Your task to perform on an android device: Open the Play Movies app and select the watchlist tab. Image 0: 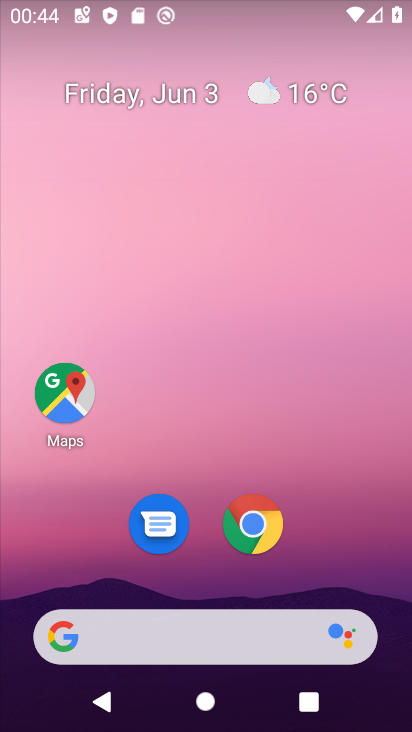
Step 0: drag from (337, 545) to (310, 38)
Your task to perform on an android device: Open the Play Movies app and select the watchlist tab. Image 1: 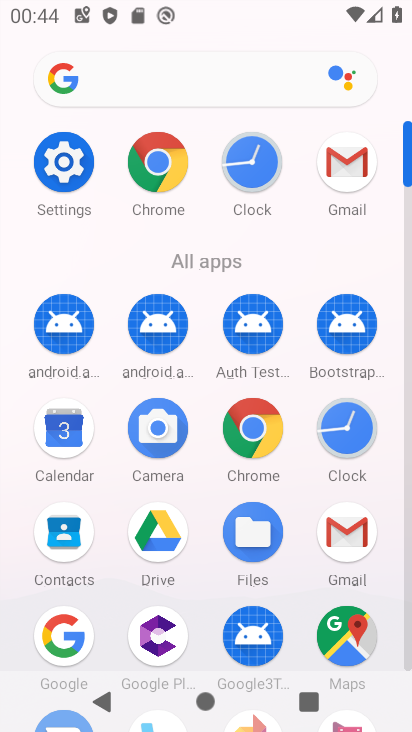
Step 1: drag from (301, 558) to (276, 242)
Your task to perform on an android device: Open the Play Movies app and select the watchlist tab. Image 2: 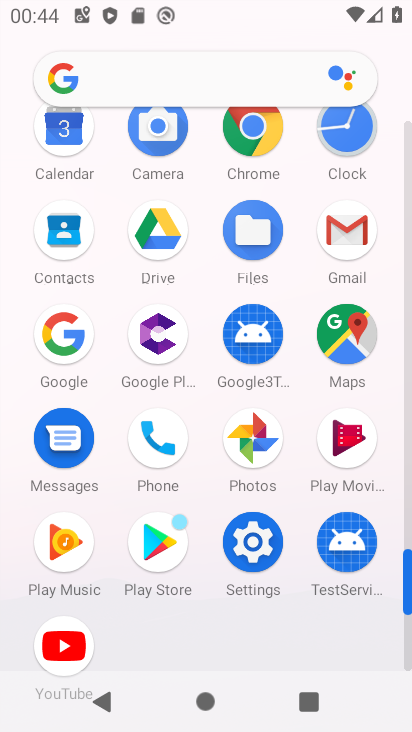
Step 2: click (345, 434)
Your task to perform on an android device: Open the Play Movies app and select the watchlist tab. Image 3: 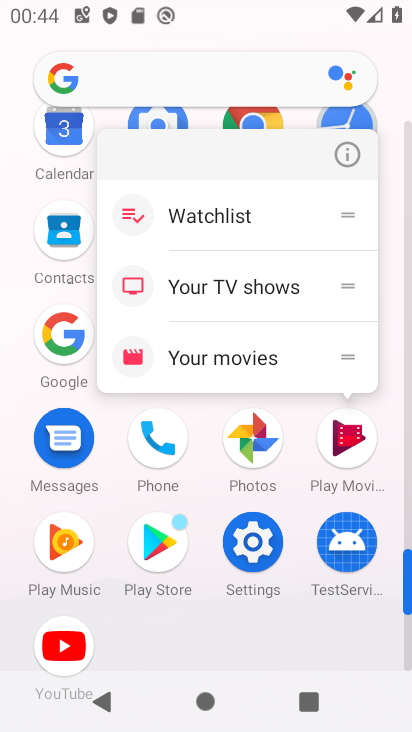
Step 3: click (345, 436)
Your task to perform on an android device: Open the Play Movies app and select the watchlist tab. Image 4: 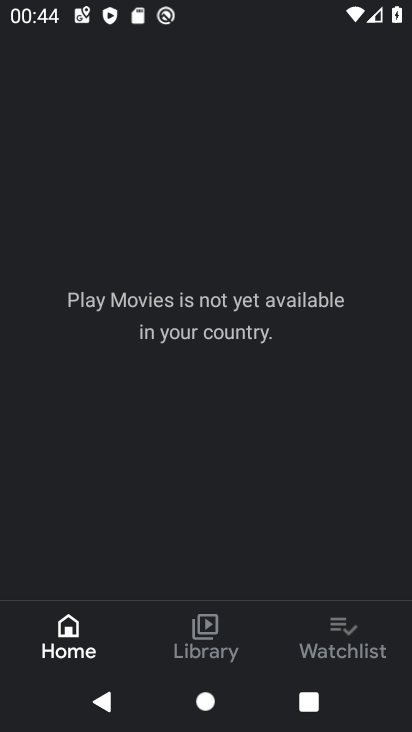
Step 4: click (346, 644)
Your task to perform on an android device: Open the Play Movies app and select the watchlist tab. Image 5: 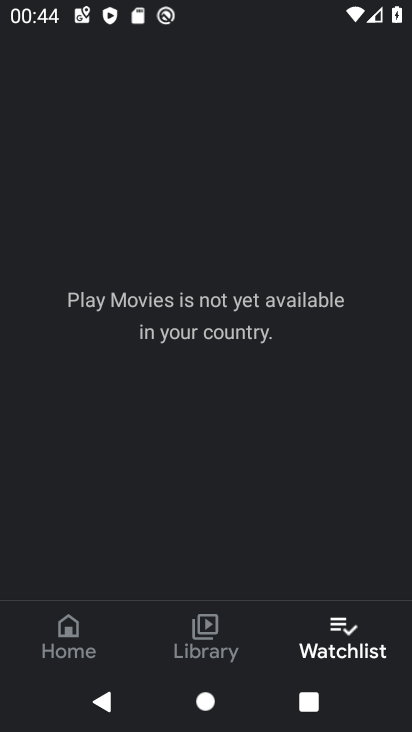
Step 5: task complete